Your task to perform on an android device: Open Youtube and go to "Your channel" Image 0: 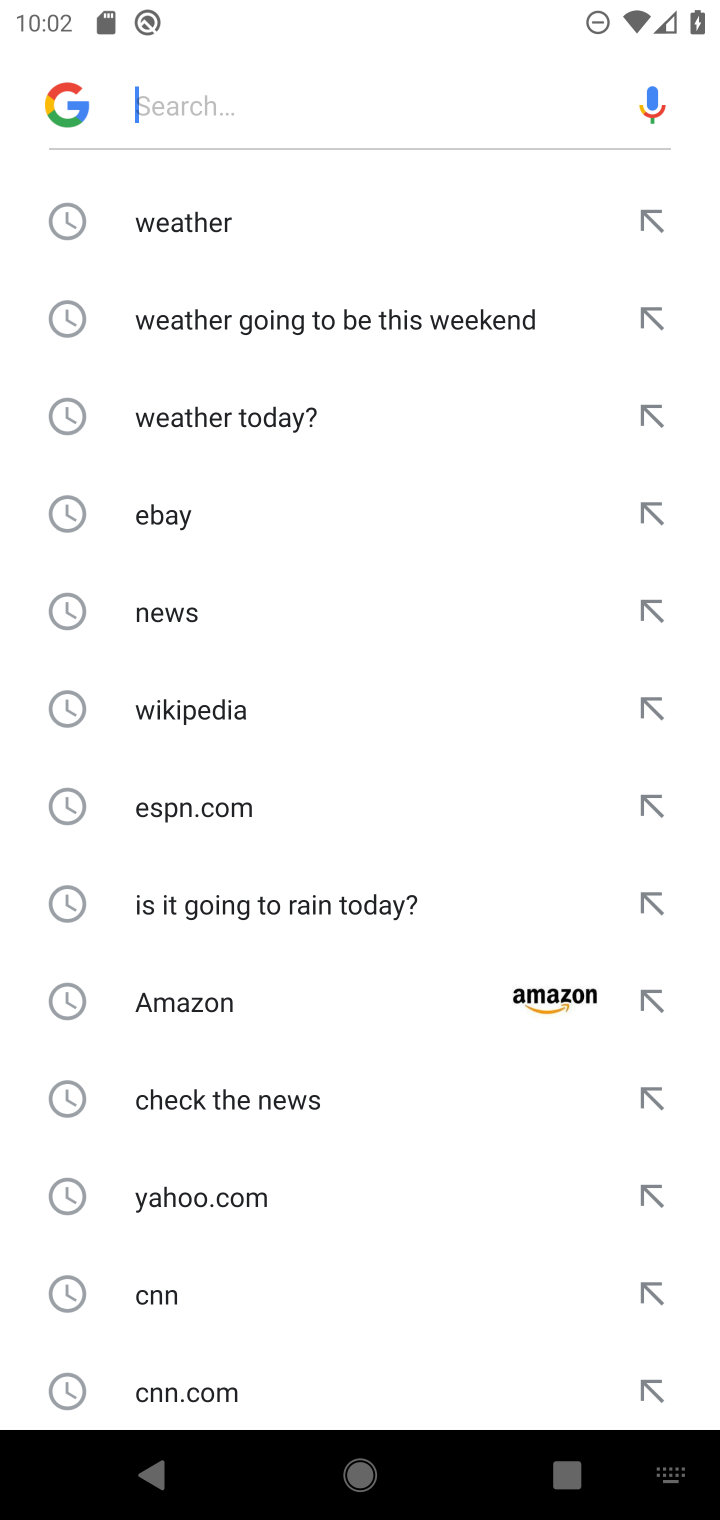
Step 0: press home button
Your task to perform on an android device: Open Youtube and go to "Your channel" Image 1: 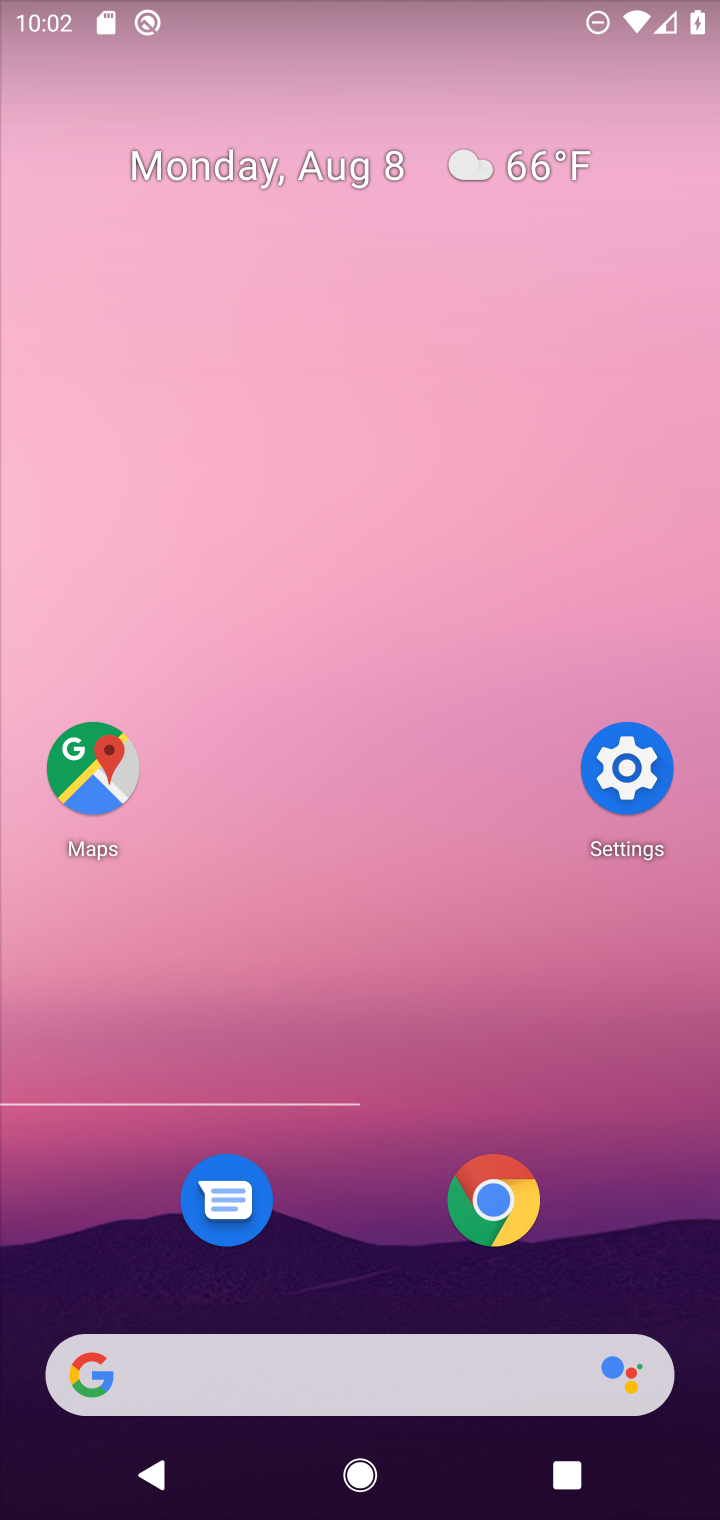
Step 1: drag from (400, 1293) to (680, 153)
Your task to perform on an android device: Open Youtube and go to "Your channel" Image 2: 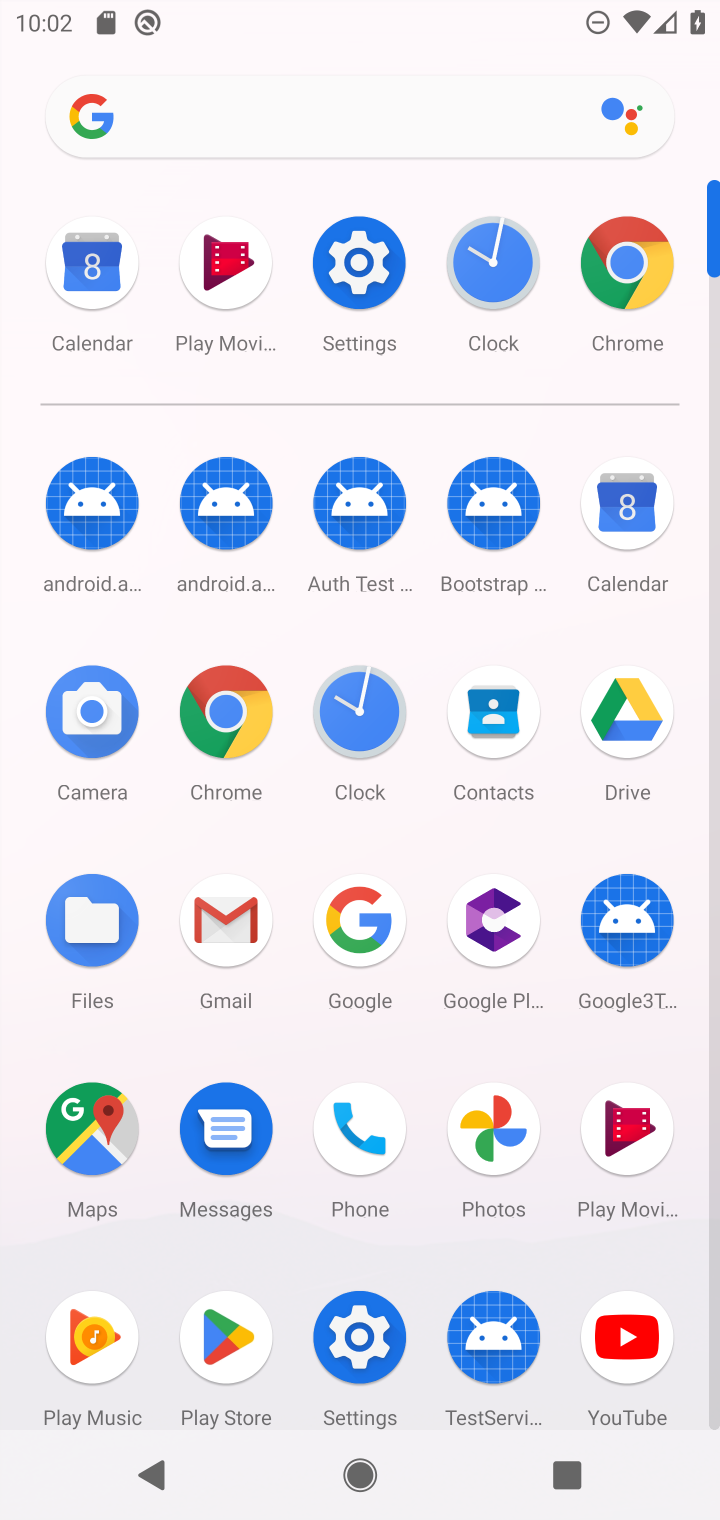
Step 2: click (646, 1342)
Your task to perform on an android device: Open Youtube and go to "Your channel" Image 3: 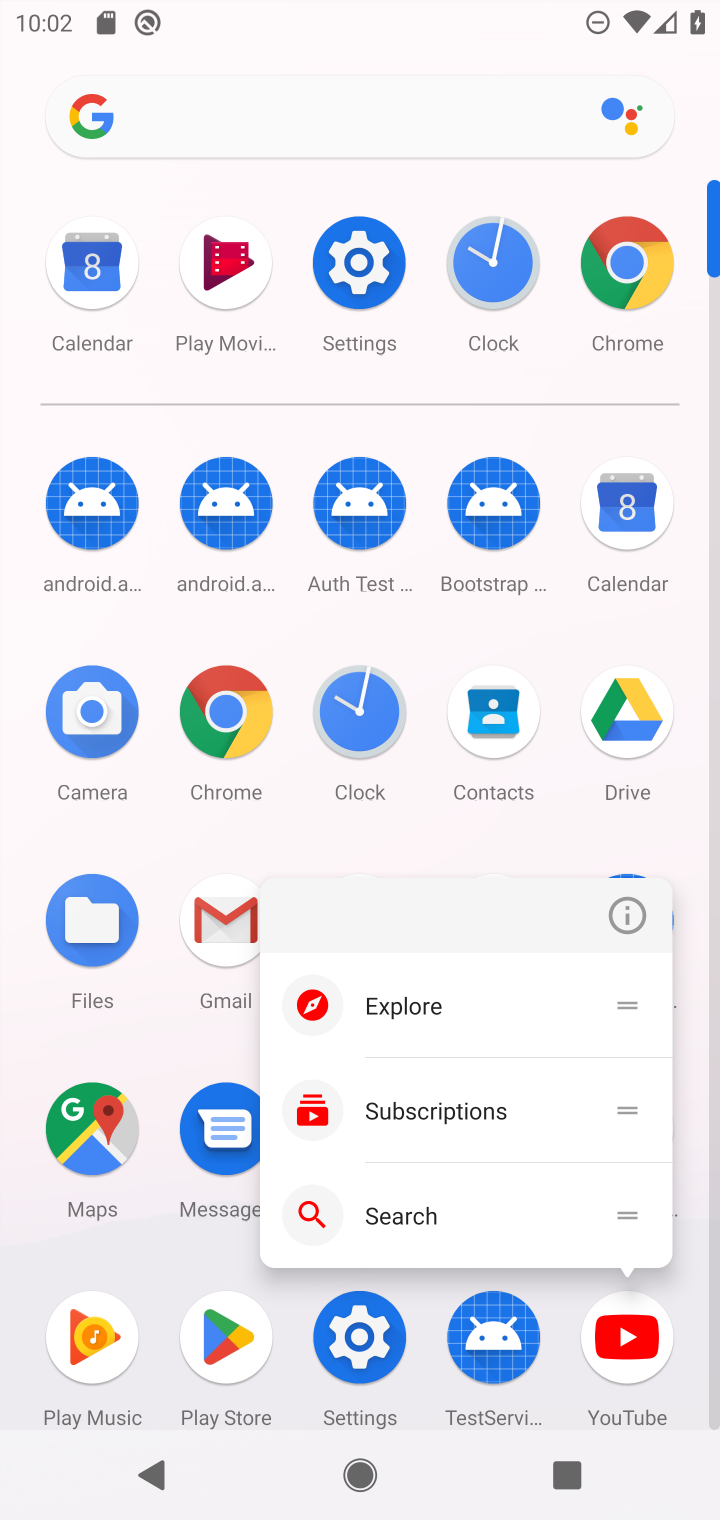
Step 3: click (628, 1345)
Your task to perform on an android device: Open Youtube and go to "Your channel" Image 4: 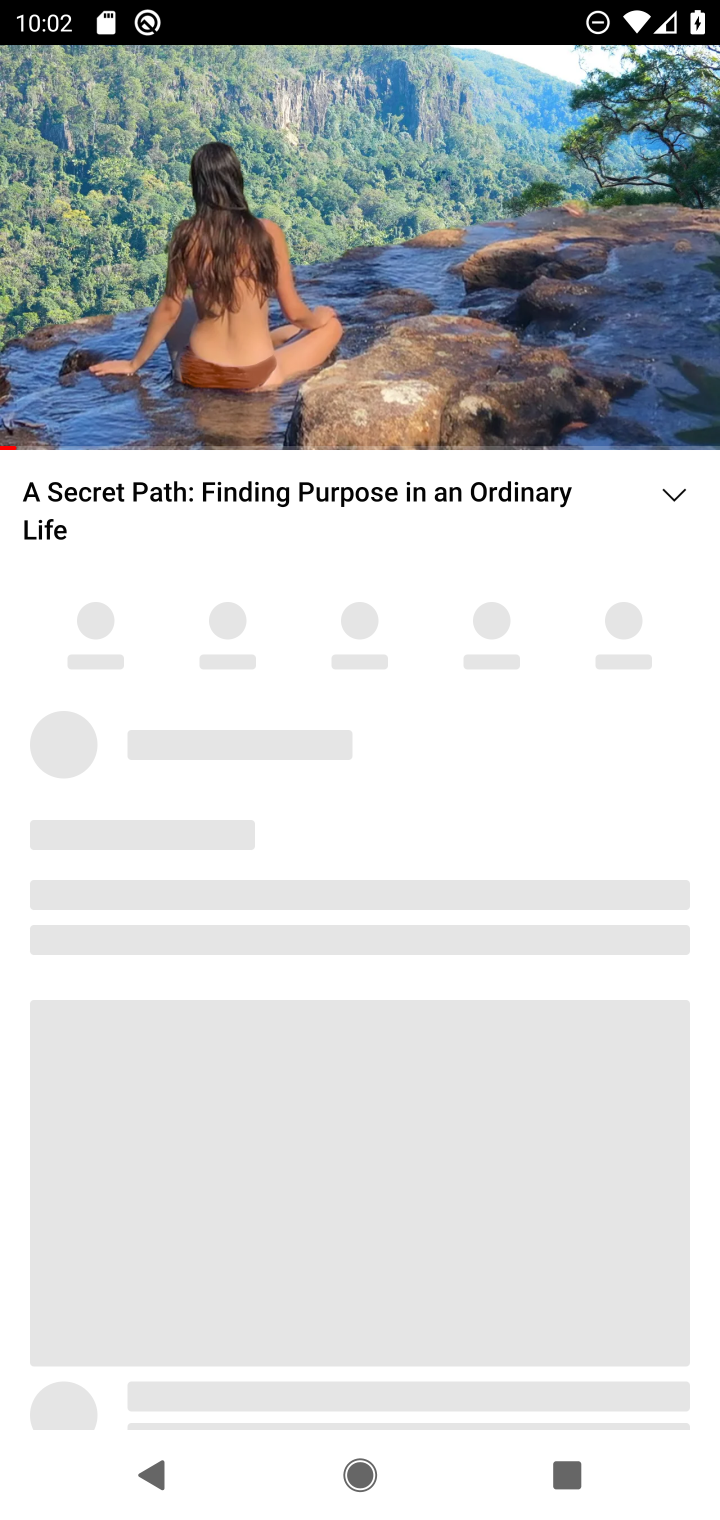
Step 4: press back button
Your task to perform on an android device: Open Youtube and go to "Your channel" Image 5: 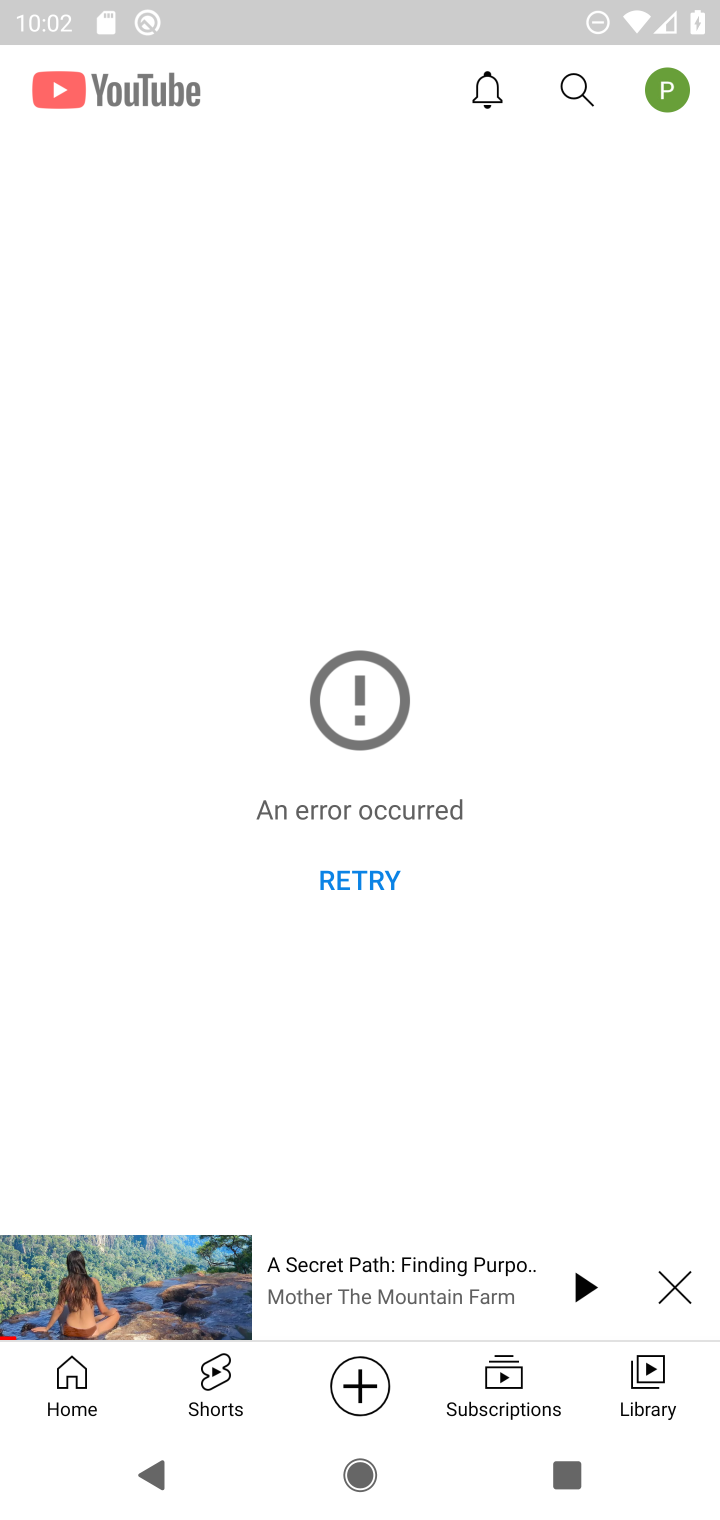
Step 5: click (661, 1285)
Your task to perform on an android device: Open Youtube and go to "Your channel" Image 6: 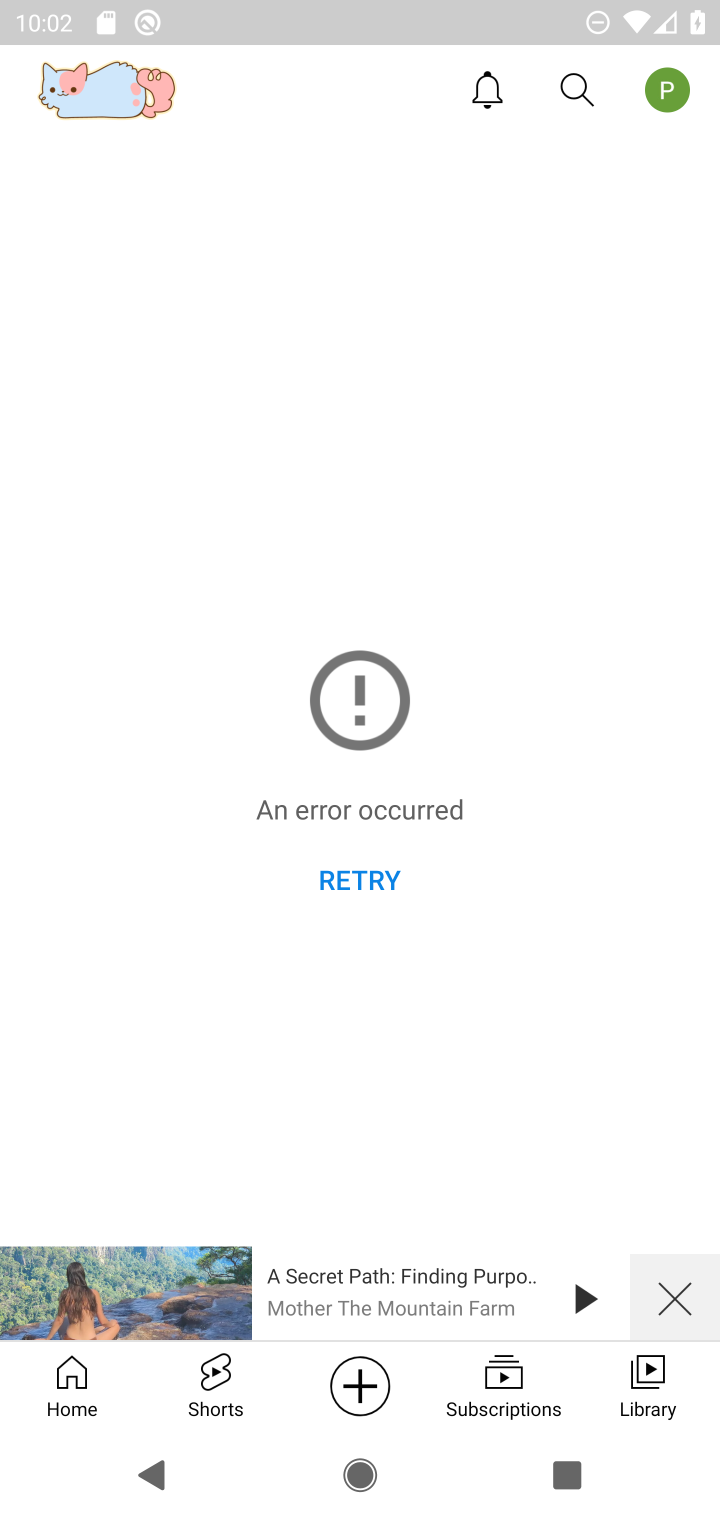
Step 6: click (369, 871)
Your task to perform on an android device: Open Youtube and go to "Your channel" Image 7: 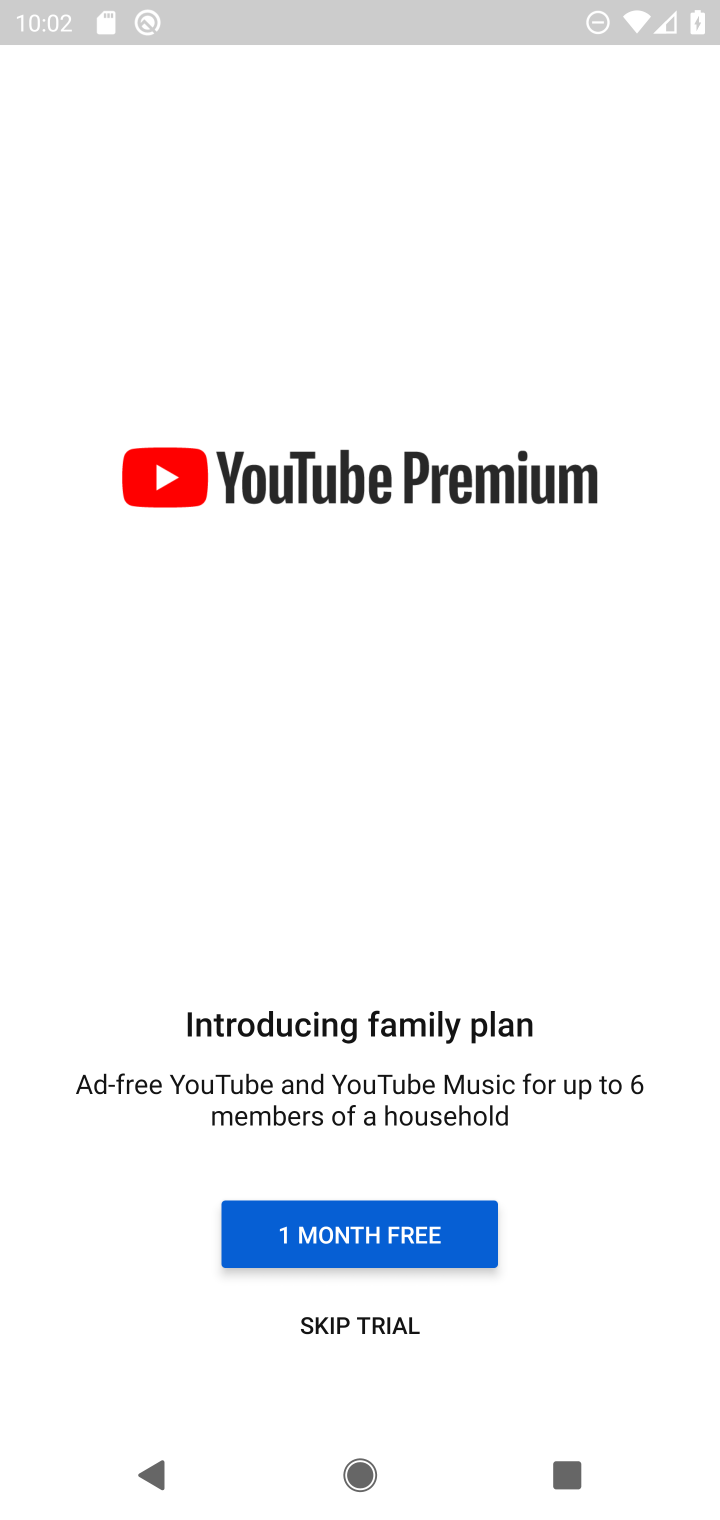
Step 7: click (367, 1309)
Your task to perform on an android device: Open Youtube and go to "Your channel" Image 8: 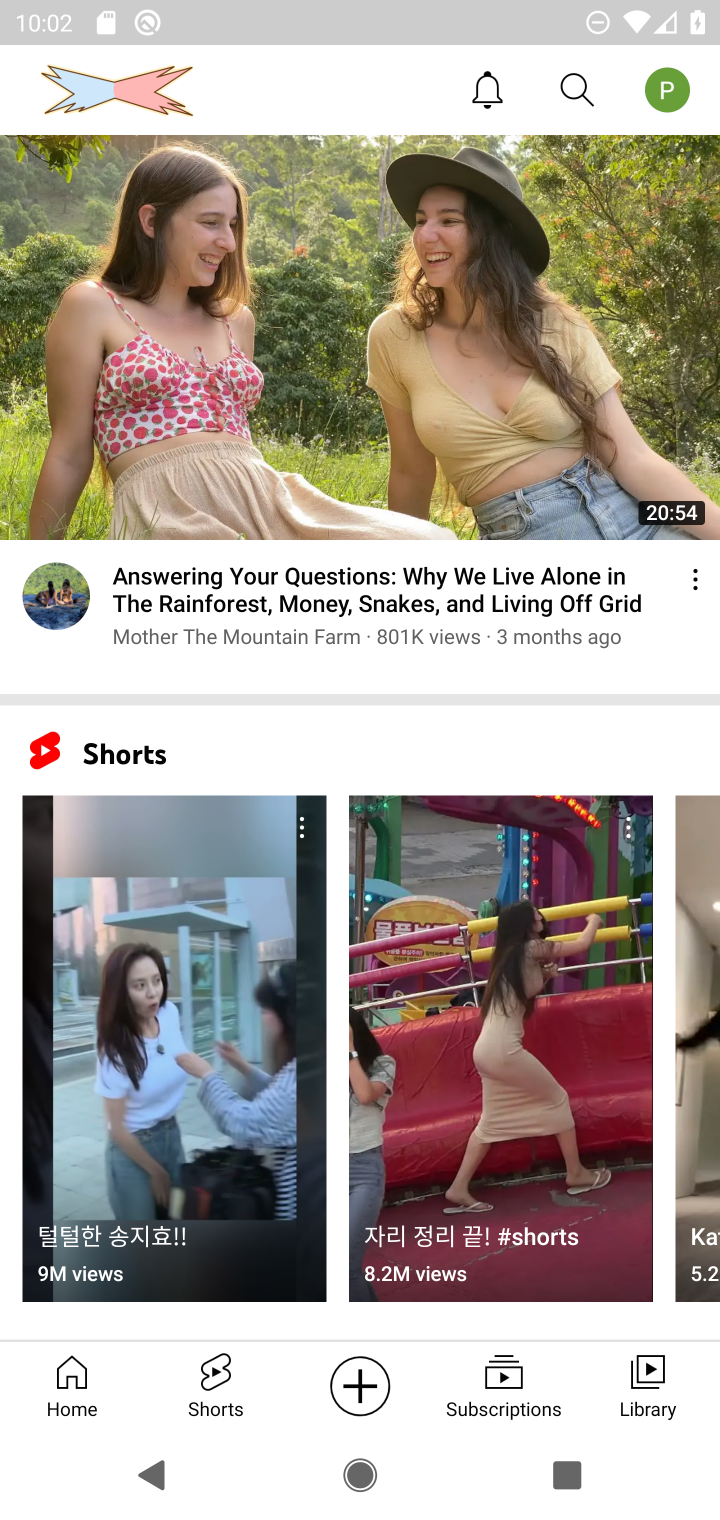
Step 8: click (673, 95)
Your task to perform on an android device: Open Youtube and go to "Your channel" Image 9: 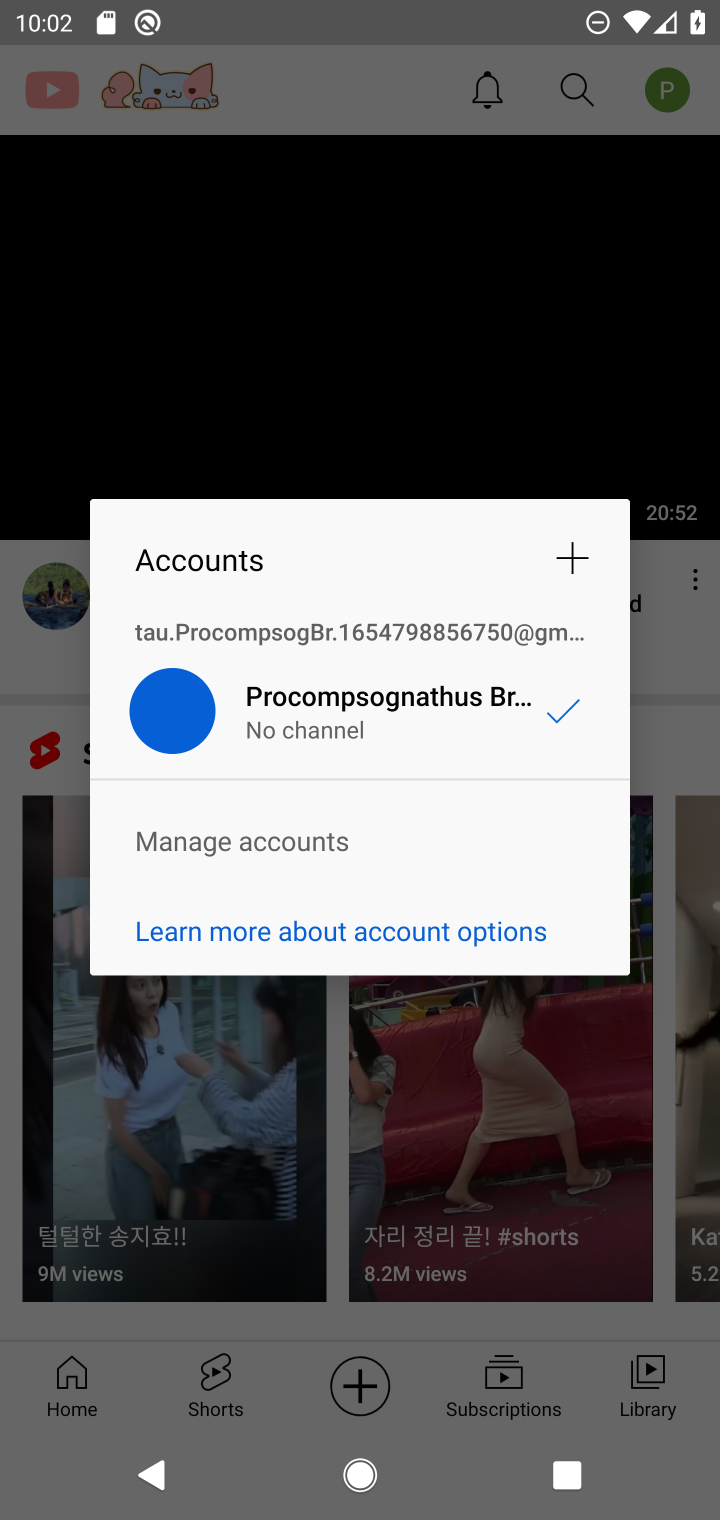
Step 9: click (670, 86)
Your task to perform on an android device: Open Youtube and go to "Your channel" Image 10: 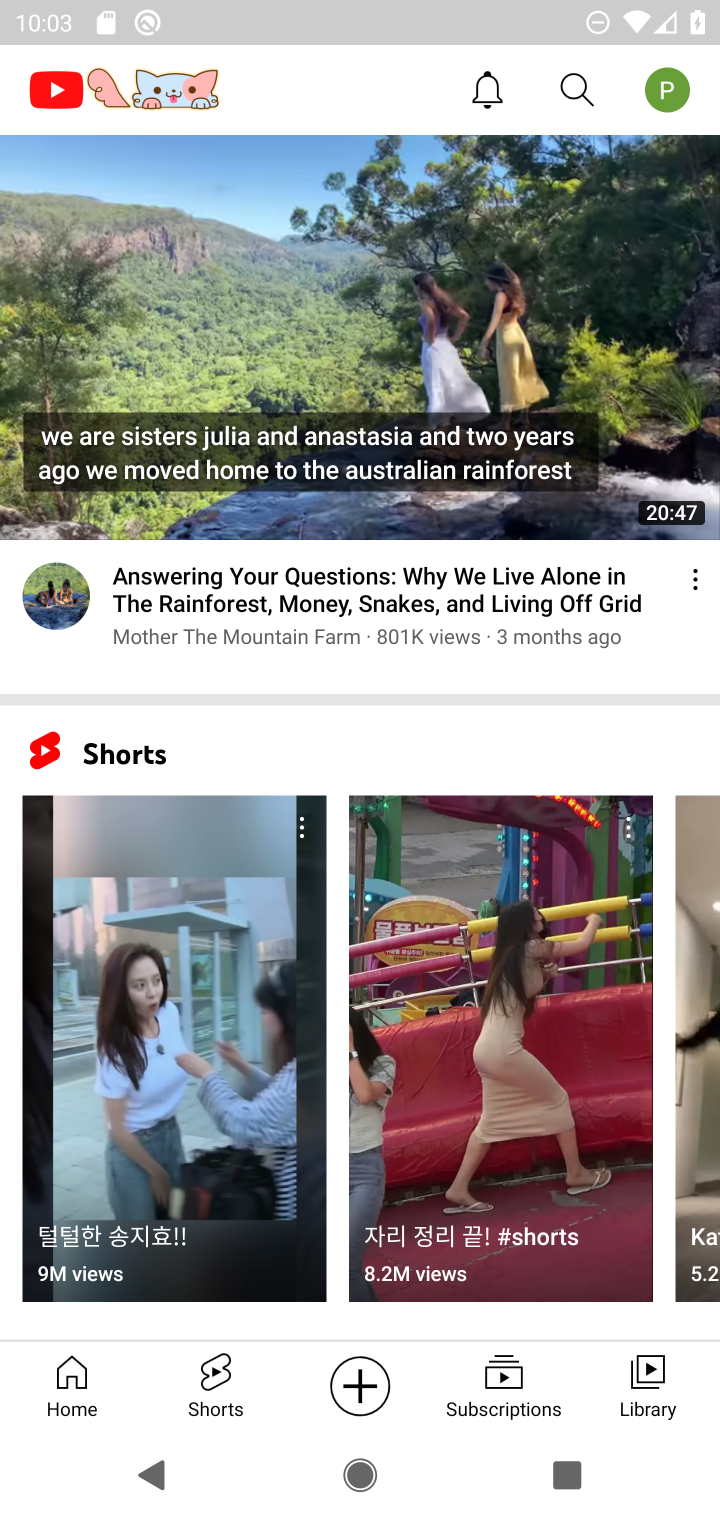
Step 10: click (652, 89)
Your task to perform on an android device: Open Youtube and go to "Your channel" Image 11: 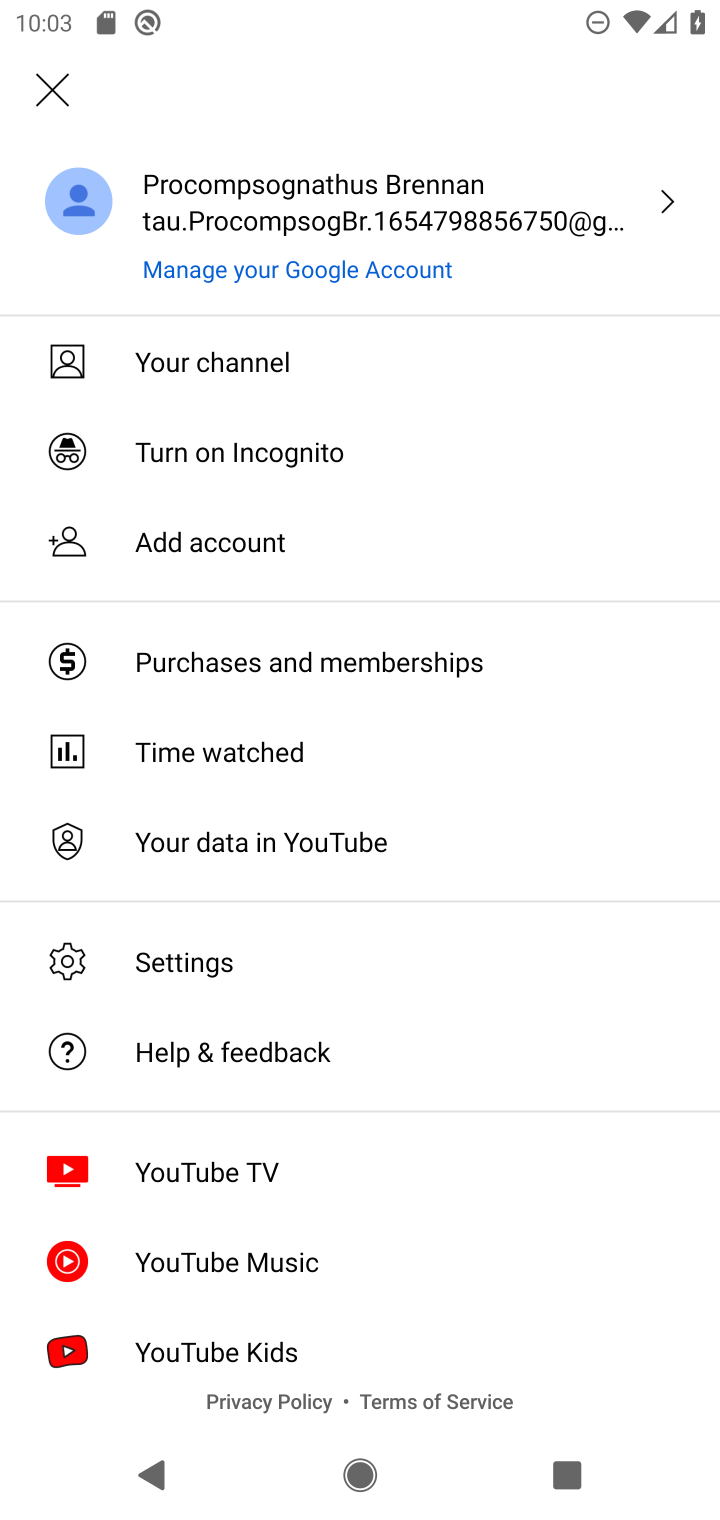
Step 11: click (660, 81)
Your task to perform on an android device: Open Youtube and go to "Your channel" Image 12: 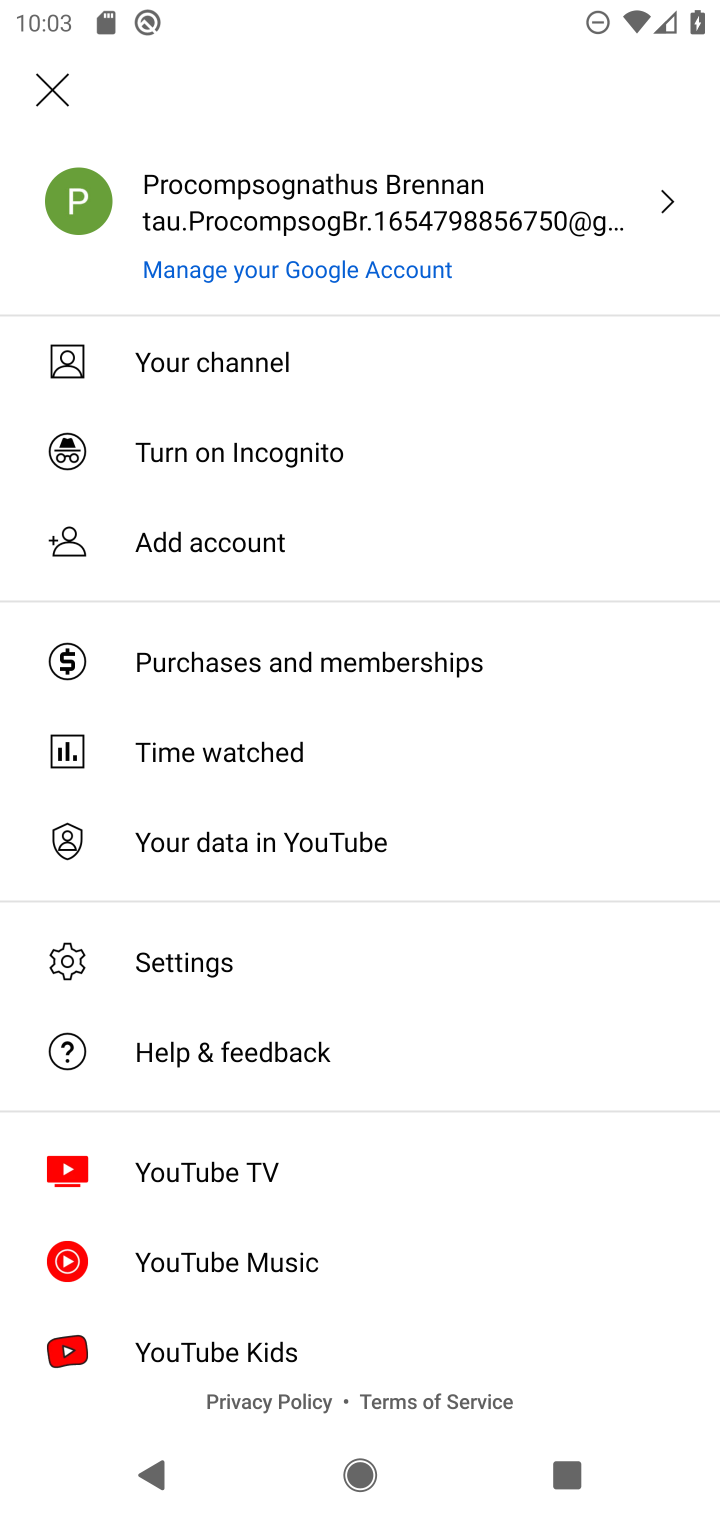
Step 12: click (218, 358)
Your task to perform on an android device: Open Youtube and go to "Your channel" Image 13: 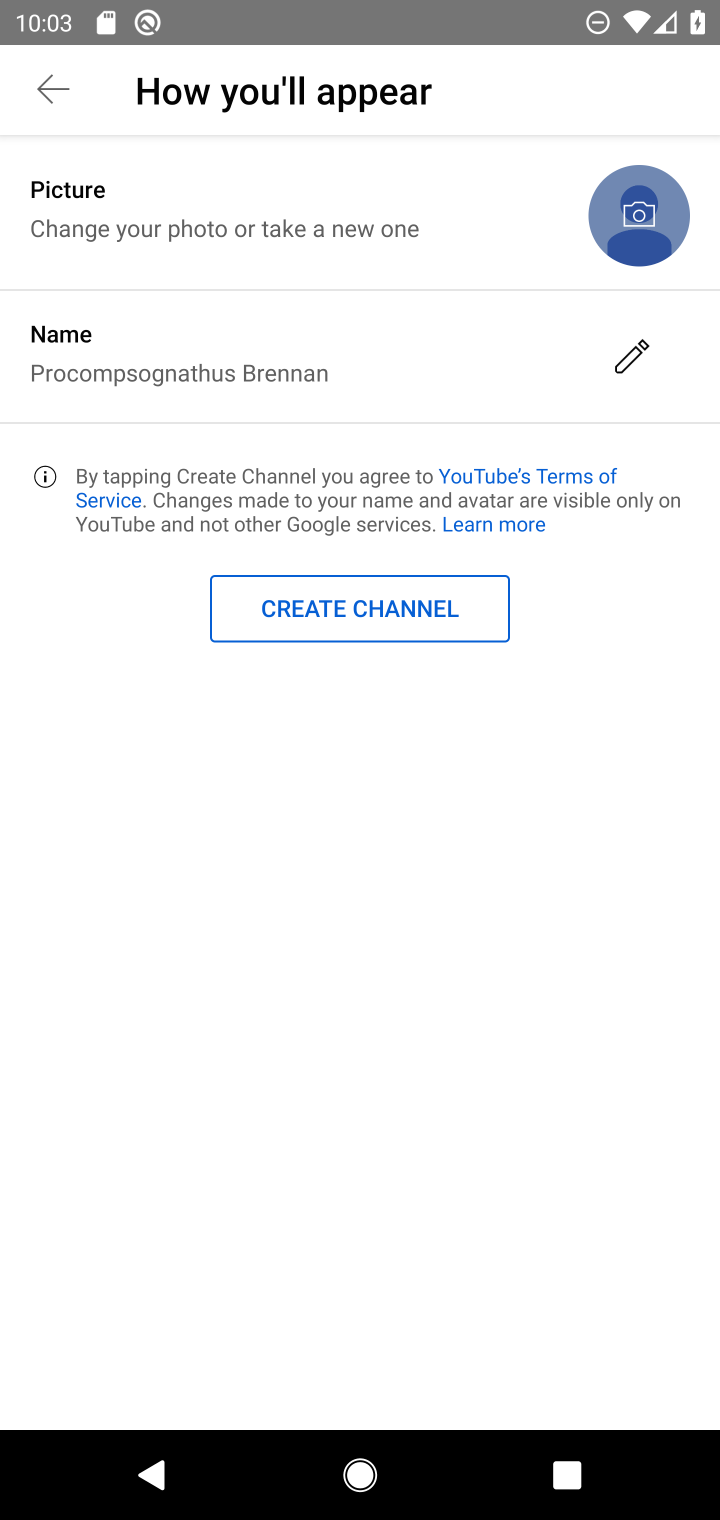
Step 13: task complete